Your task to perform on an android device: turn notification dots off Image 0: 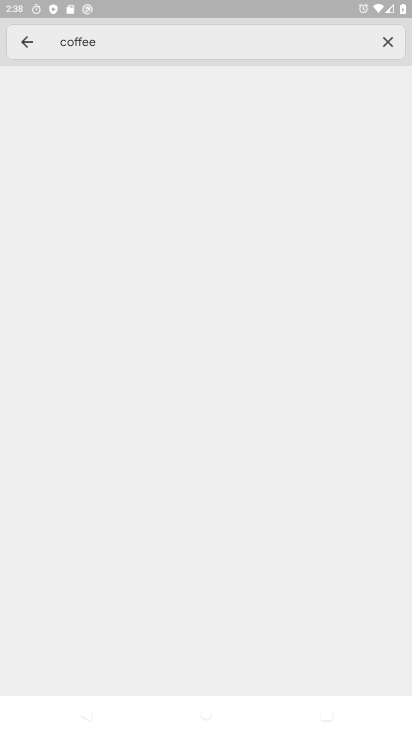
Step 0: press home button
Your task to perform on an android device: turn notification dots off Image 1: 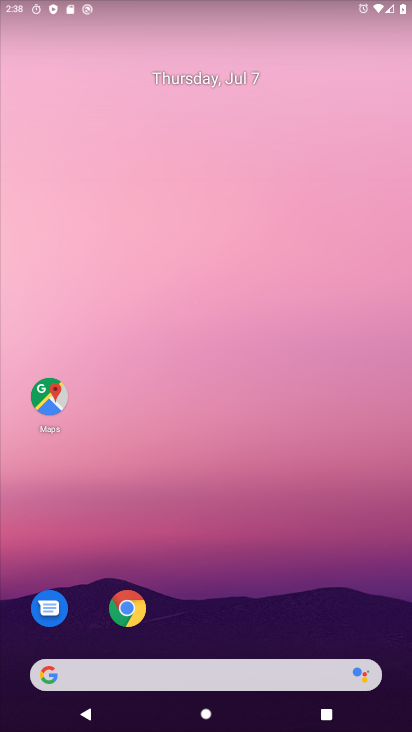
Step 1: drag from (245, 714) to (181, 87)
Your task to perform on an android device: turn notification dots off Image 2: 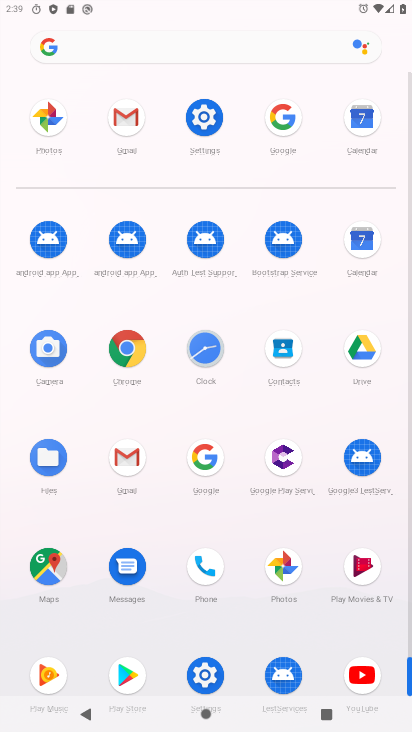
Step 2: click (203, 119)
Your task to perform on an android device: turn notification dots off Image 3: 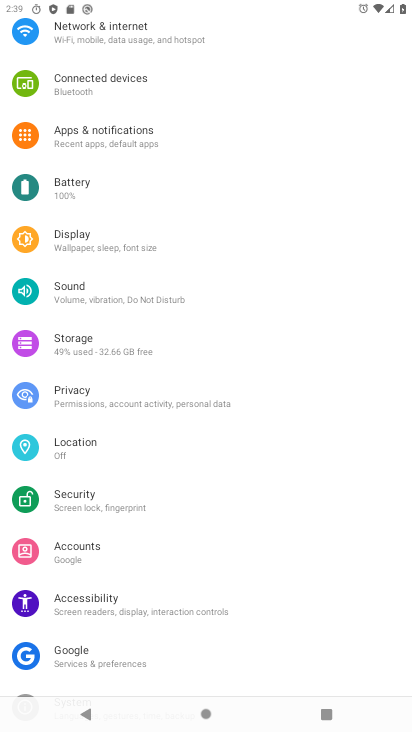
Step 3: click (90, 138)
Your task to perform on an android device: turn notification dots off Image 4: 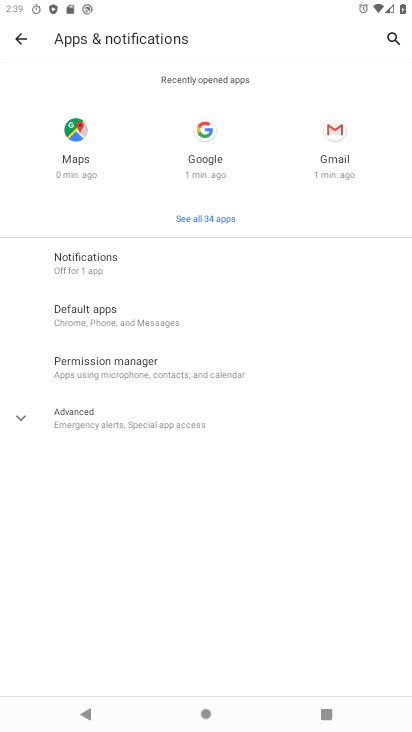
Step 4: click (85, 262)
Your task to perform on an android device: turn notification dots off Image 5: 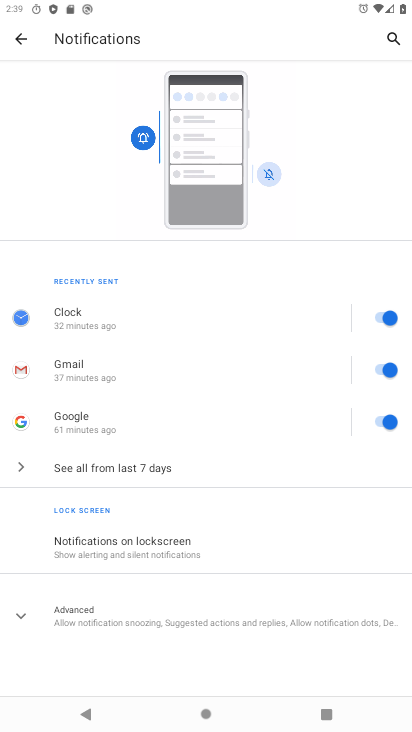
Step 5: click (87, 615)
Your task to perform on an android device: turn notification dots off Image 6: 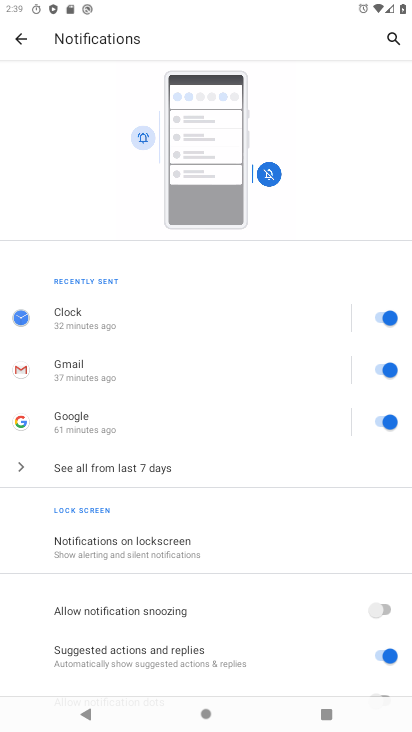
Step 6: task complete